Your task to perform on an android device: toggle priority inbox in the gmail app Image 0: 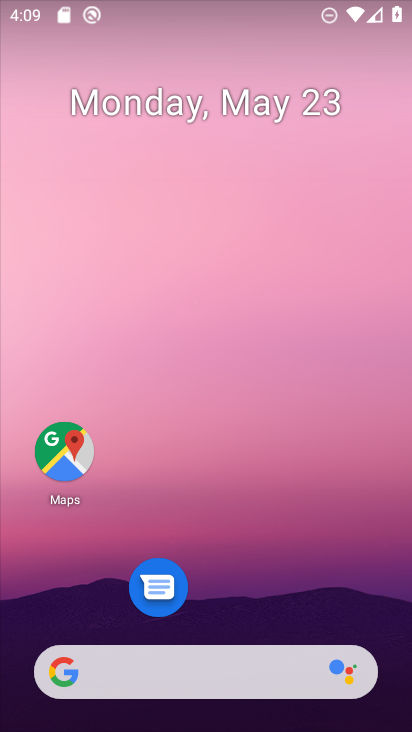
Step 0: drag from (211, 592) to (212, 176)
Your task to perform on an android device: toggle priority inbox in the gmail app Image 1: 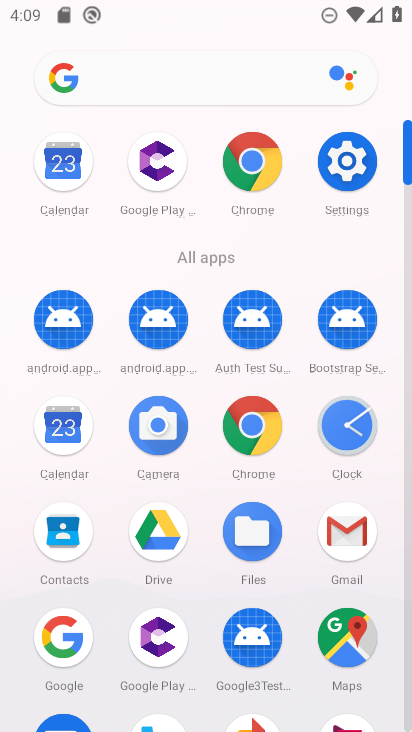
Step 1: click (343, 533)
Your task to perform on an android device: toggle priority inbox in the gmail app Image 2: 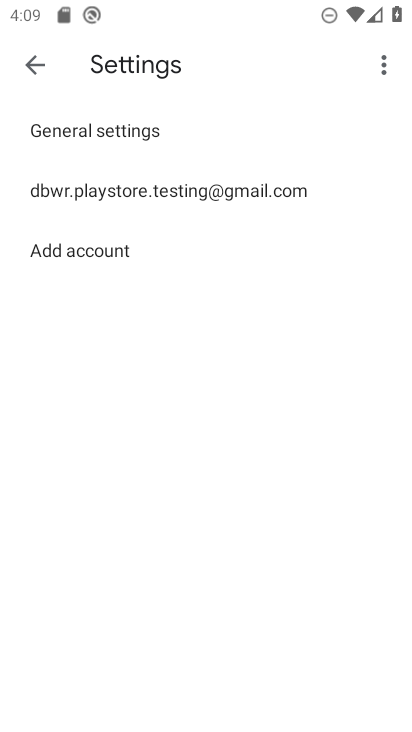
Step 2: click (38, 71)
Your task to perform on an android device: toggle priority inbox in the gmail app Image 3: 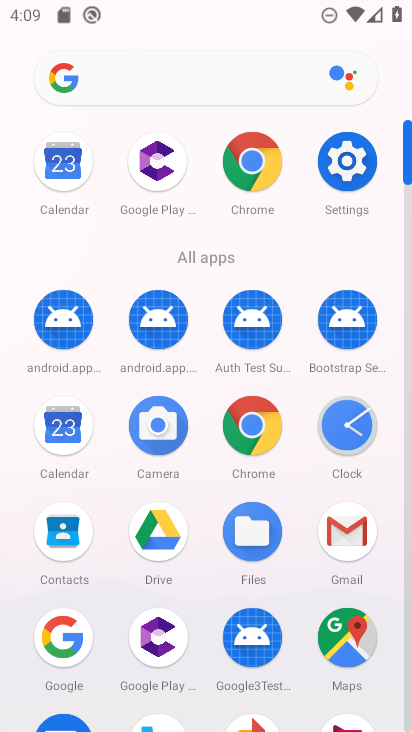
Step 3: click (326, 515)
Your task to perform on an android device: toggle priority inbox in the gmail app Image 4: 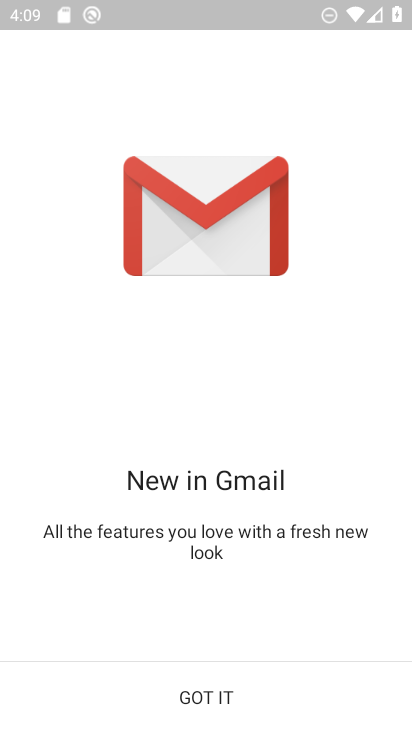
Step 4: click (230, 706)
Your task to perform on an android device: toggle priority inbox in the gmail app Image 5: 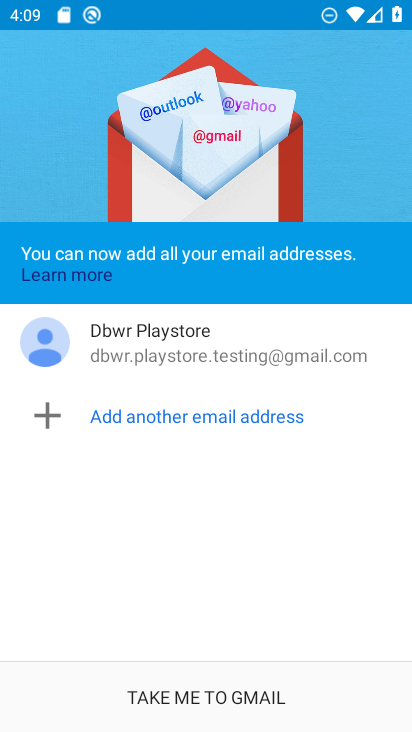
Step 5: click (230, 706)
Your task to perform on an android device: toggle priority inbox in the gmail app Image 6: 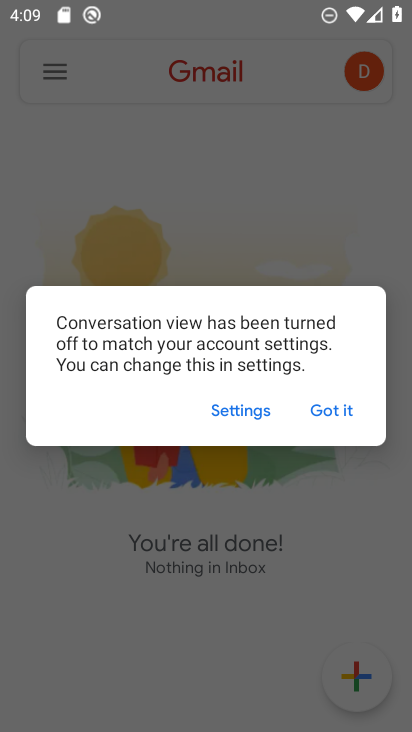
Step 6: click (317, 399)
Your task to perform on an android device: toggle priority inbox in the gmail app Image 7: 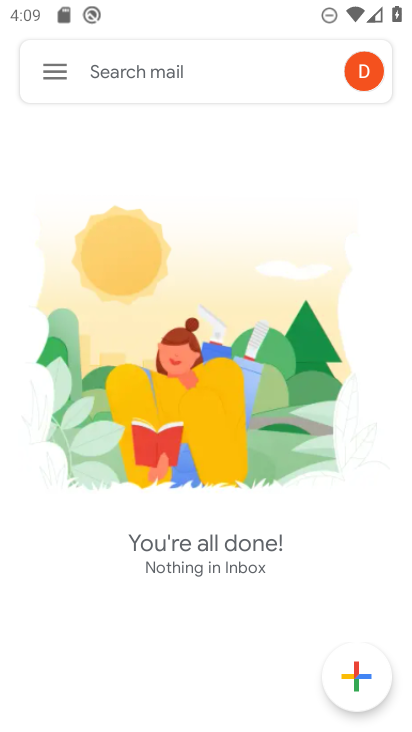
Step 7: click (45, 75)
Your task to perform on an android device: toggle priority inbox in the gmail app Image 8: 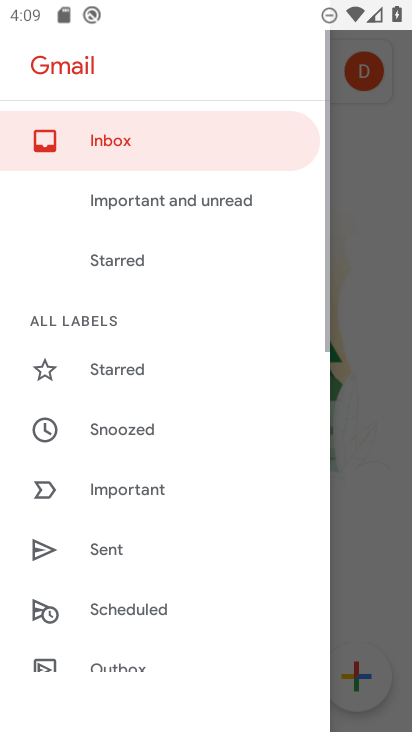
Step 8: drag from (172, 632) to (194, 112)
Your task to perform on an android device: toggle priority inbox in the gmail app Image 9: 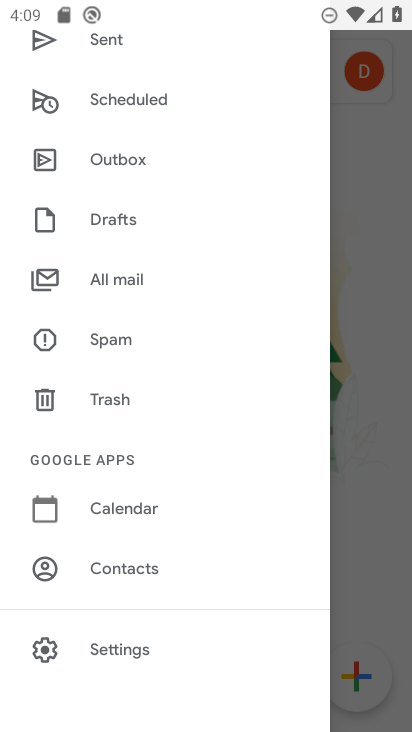
Step 9: drag from (198, 506) to (198, 125)
Your task to perform on an android device: toggle priority inbox in the gmail app Image 10: 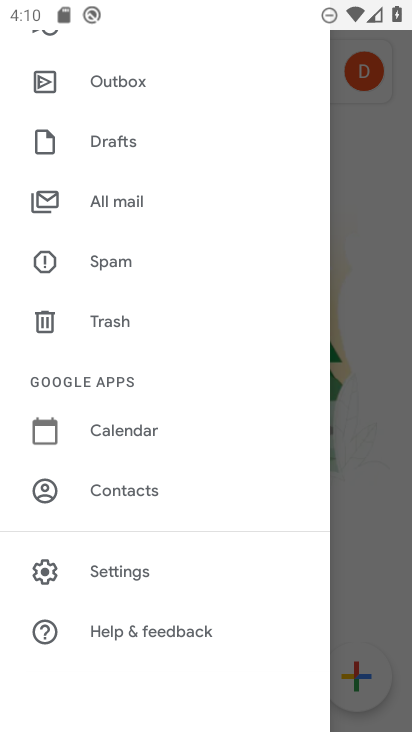
Step 10: drag from (170, 543) to (161, 283)
Your task to perform on an android device: toggle priority inbox in the gmail app Image 11: 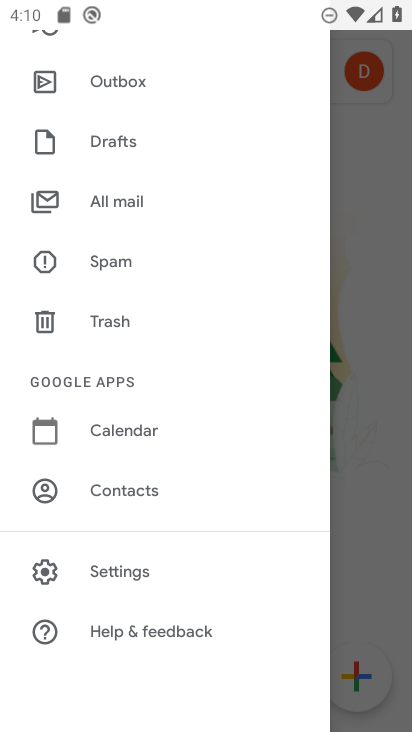
Step 11: click (144, 572)
Your task to perform on an android device: toggle priority inbox in the gmail app Image 12: 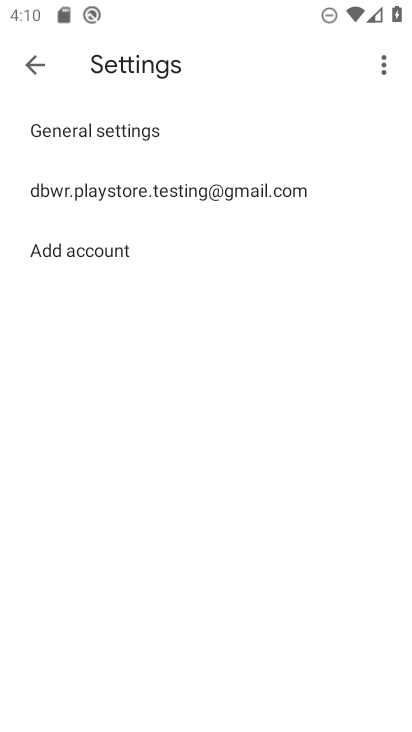
Step 12: click (172, 200)
Your task to perform on an android device: toggle priority inbox in the gmail app Image 13: 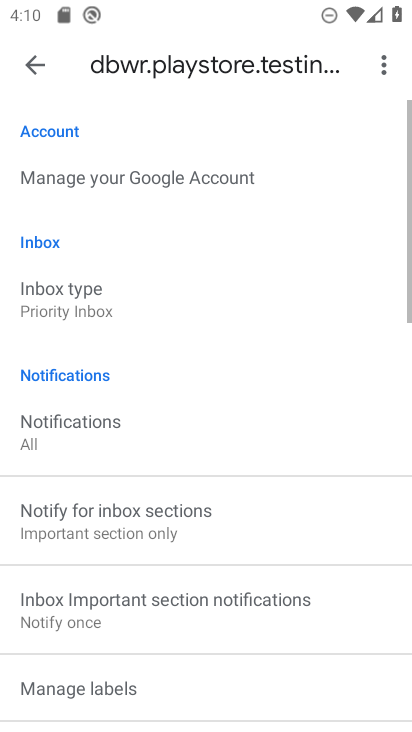
Step 13: click (102, 300)
Your task to perform on an android device: toggle priority inbox in the gmail app Image 14: 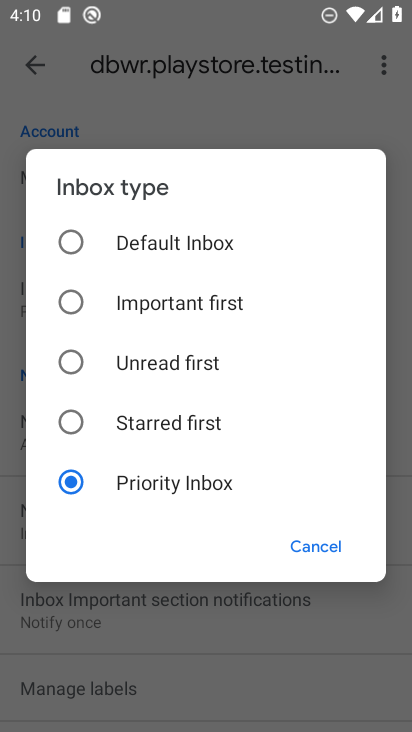
Step 14: click (133, 245)
Your task to perform on an android device: toggle priority inbox in the gmail app Image 15: 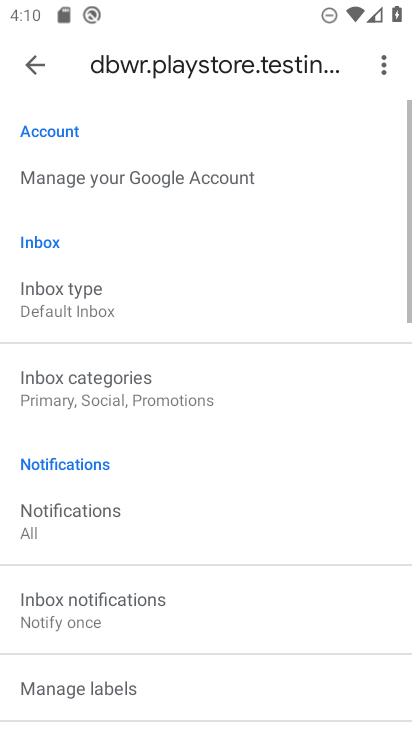
Step 15: task complete